Your task to perform on an android device: Open battery settings Image 0: 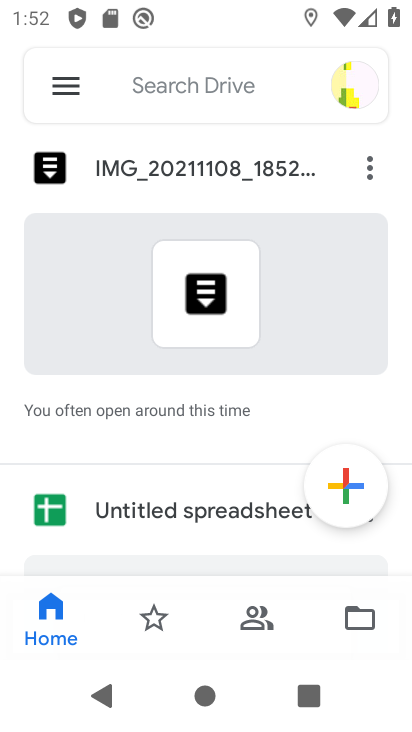
Step 0: press home button
Your task to perform on an android device: Open battery settings Image 1: 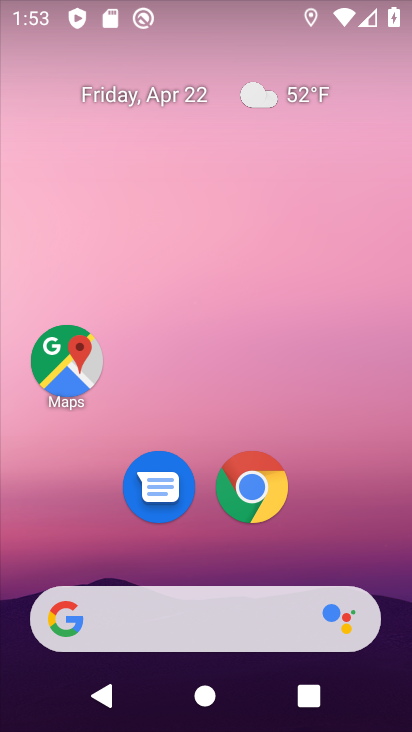
Step 1: drag from (199, 308) to (212, 6)
Your task to perform on an android device: Open battery settings Image 2: 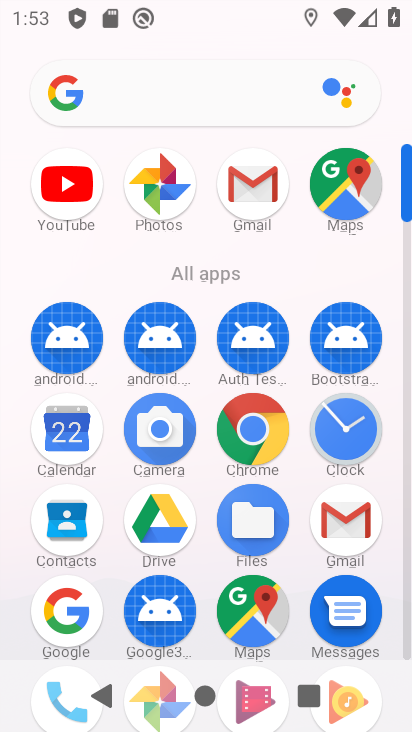
Step 2: drag from (199, 555) to (236, 196)
Your task to perform on an android device: Open battery settings Image 3: 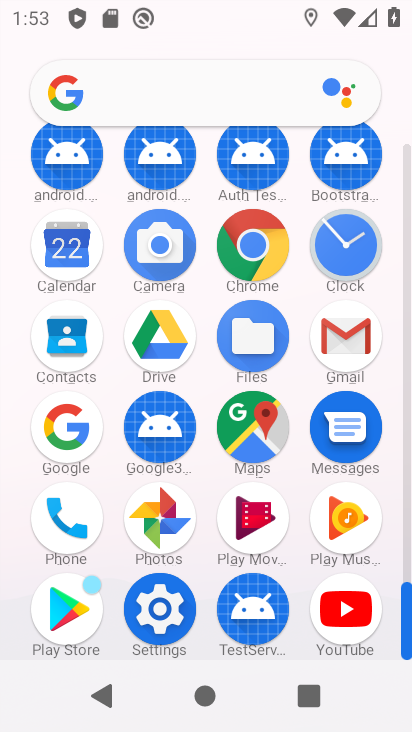
Step 3: click (167, 621)
Your task to perform on an android device: Open battery settings Image 4: 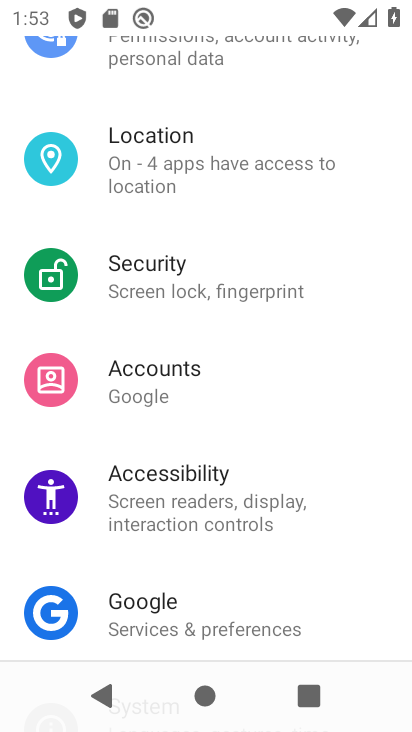
Step 4: drag from (242, 255) to (192, 678)
Your task to perform on an android device: Open battery settings Image 5: 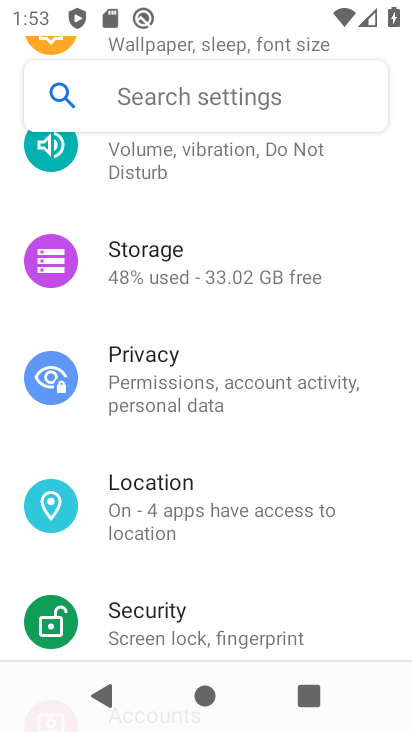
Step 5: drag from (188, 271) to (185, 698)
Your task to perform on an android device: Open battery settings Image 6: 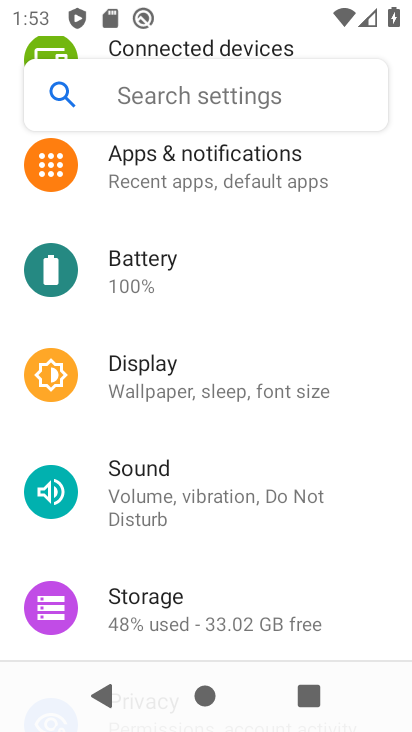
Step 6: click (198, 272)
Your task to perform on an android device: Open battery settings Image 7: 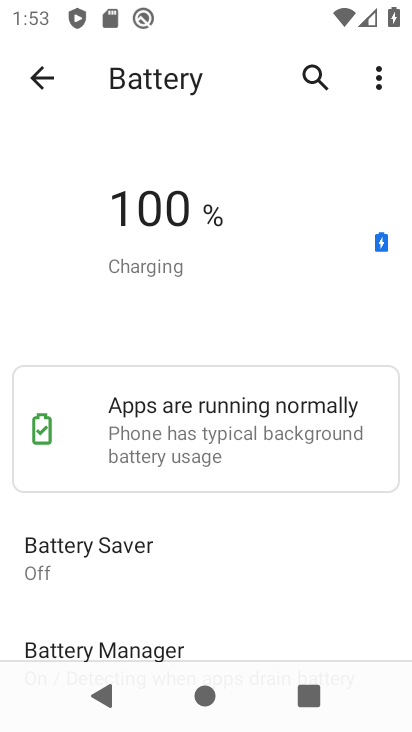
Step 7: task complete